Your task to perform on an android device: View the shopping cart on costco. Add "logitech g pro" to the cart on costco Image 0: 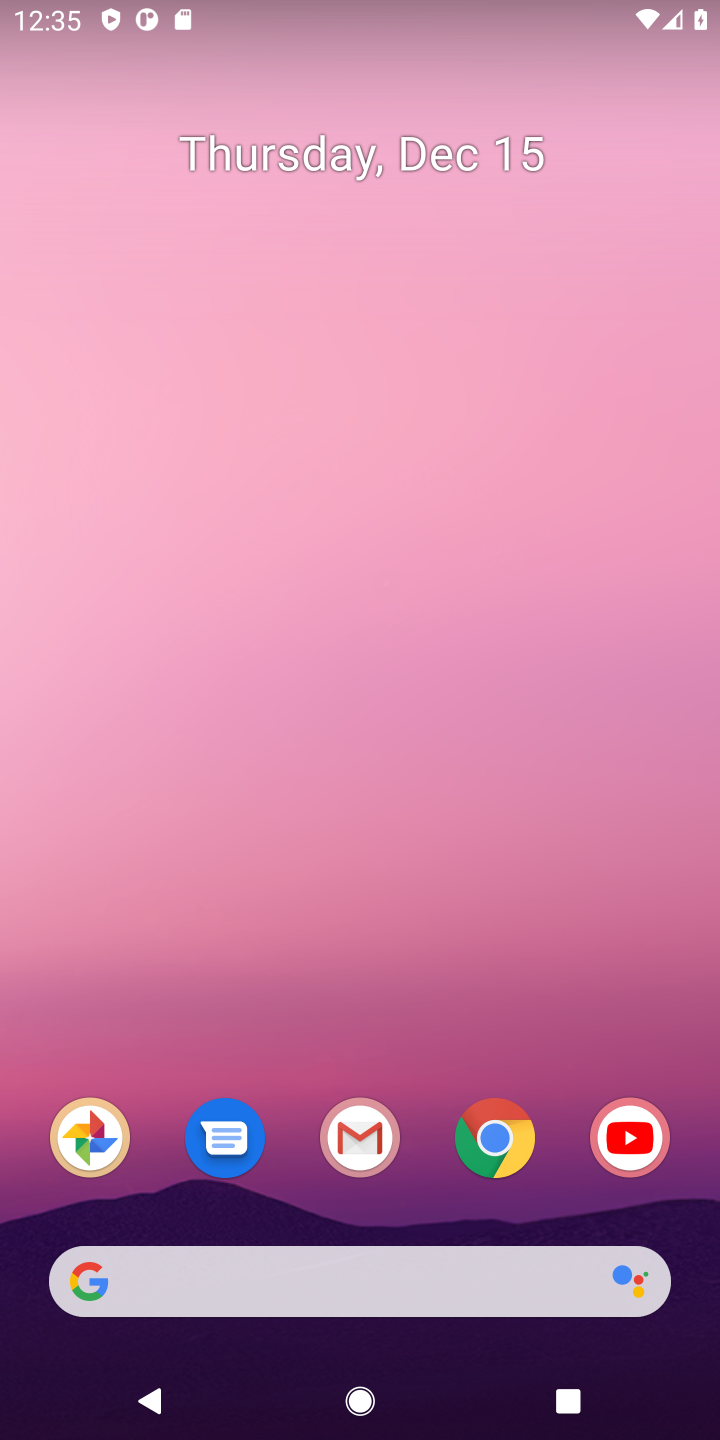
Step 0: click (533, 1126)
Your task to perform on an android device: View the shopping cart on costco. Add "logitech g pro" to the cart on costco Image 1: 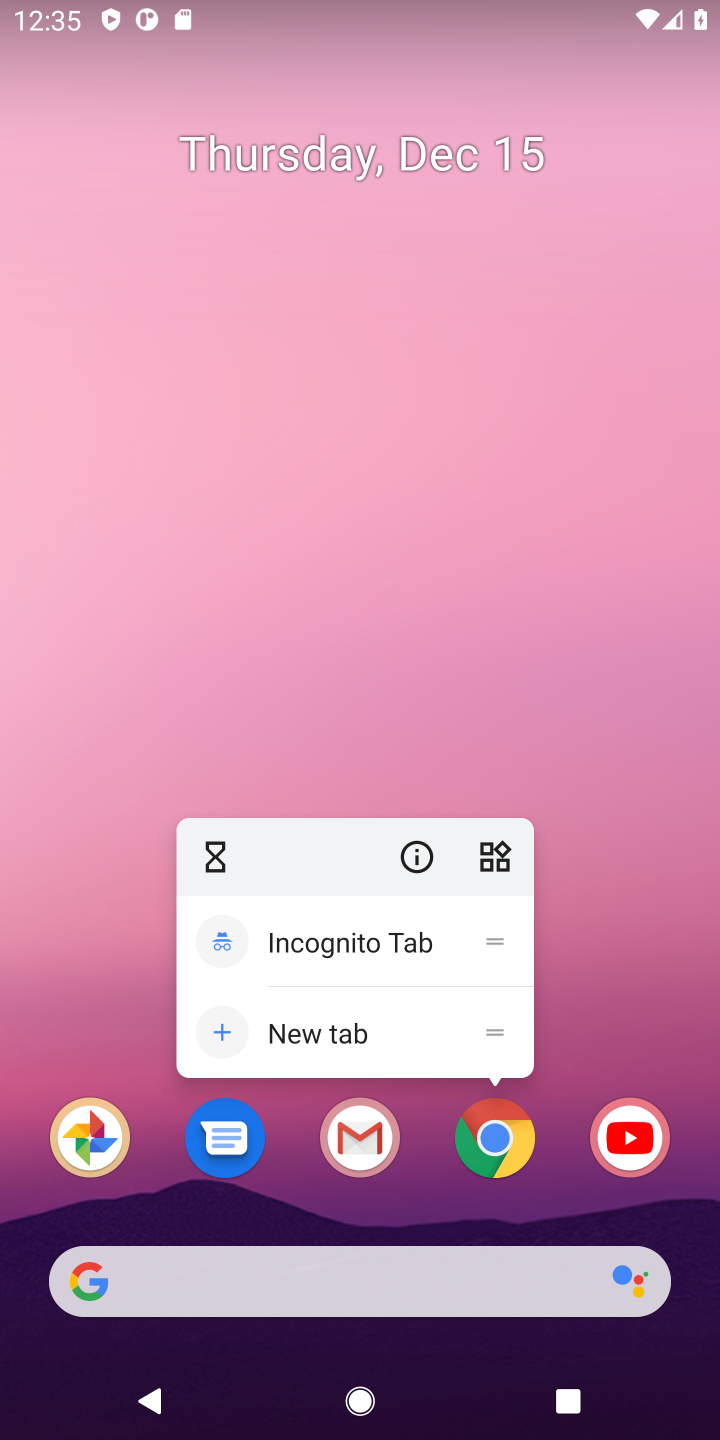
Step 1: click (501, 1153)
Your task to perform on an android device: View the shopping cart on costco. Add "logitech g pro" to the cart on costco Image 2: 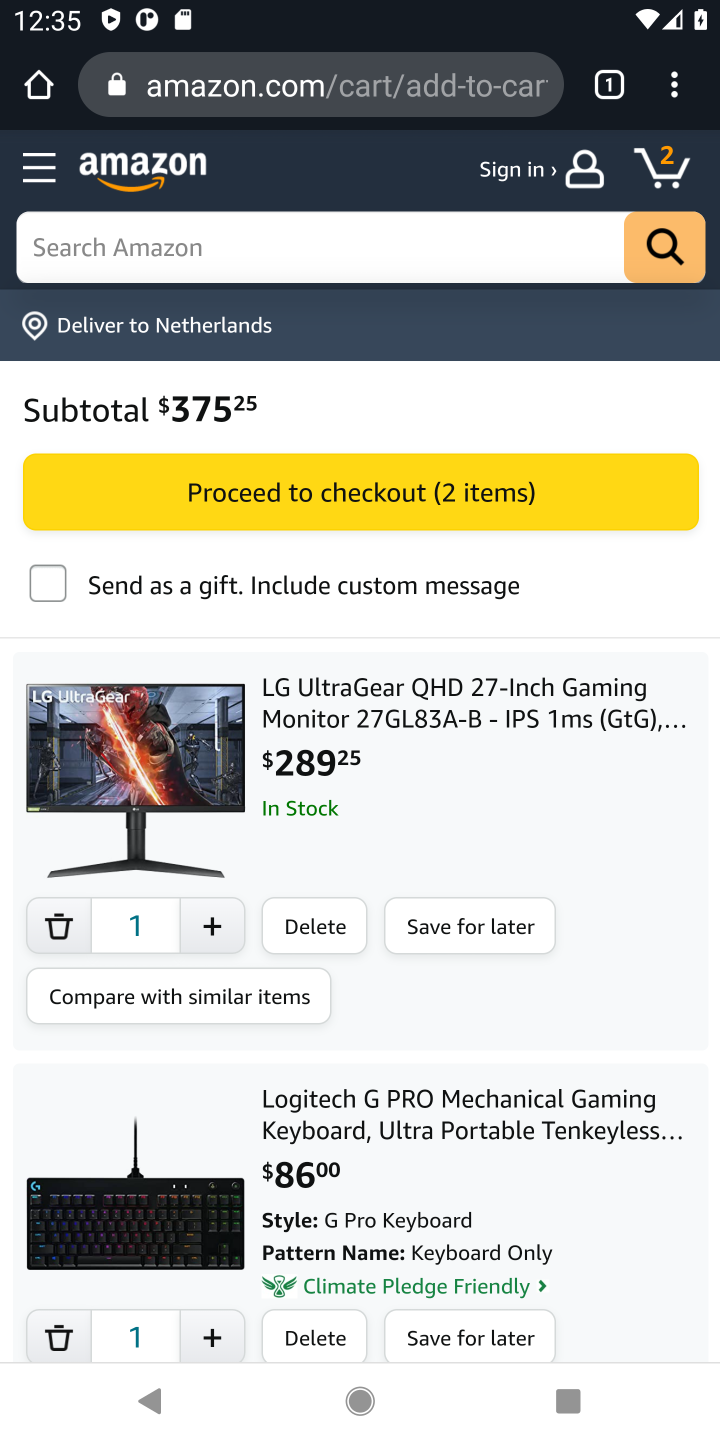
Step 2: click (324, 96)
Your task to perform on an android device: View the shopping cart on costco. Add "logitech g pro" to the cart on costco Image 3: 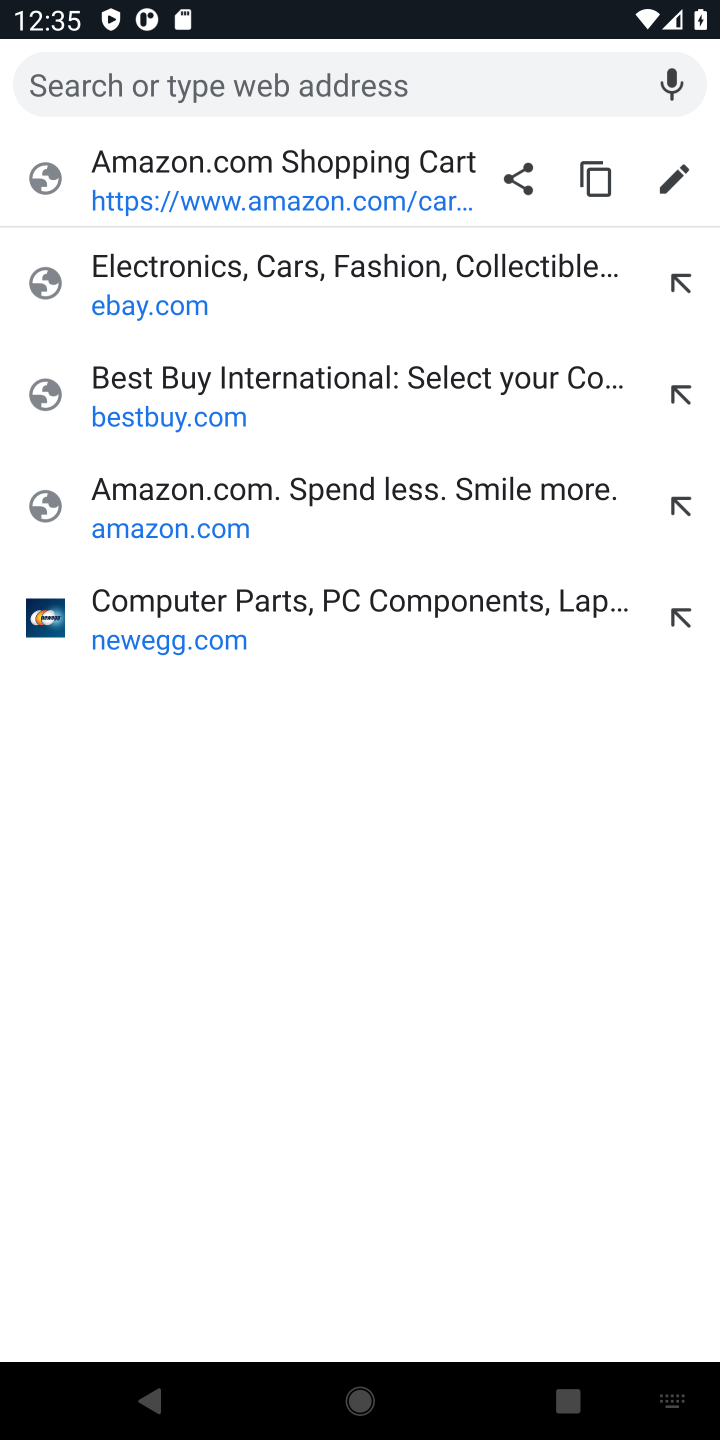
Step 3: type "costco.com"
Your task to perform on an android device: View the shopping cart on costco. Add "logitech g pro" to the cart on costco Image 4: 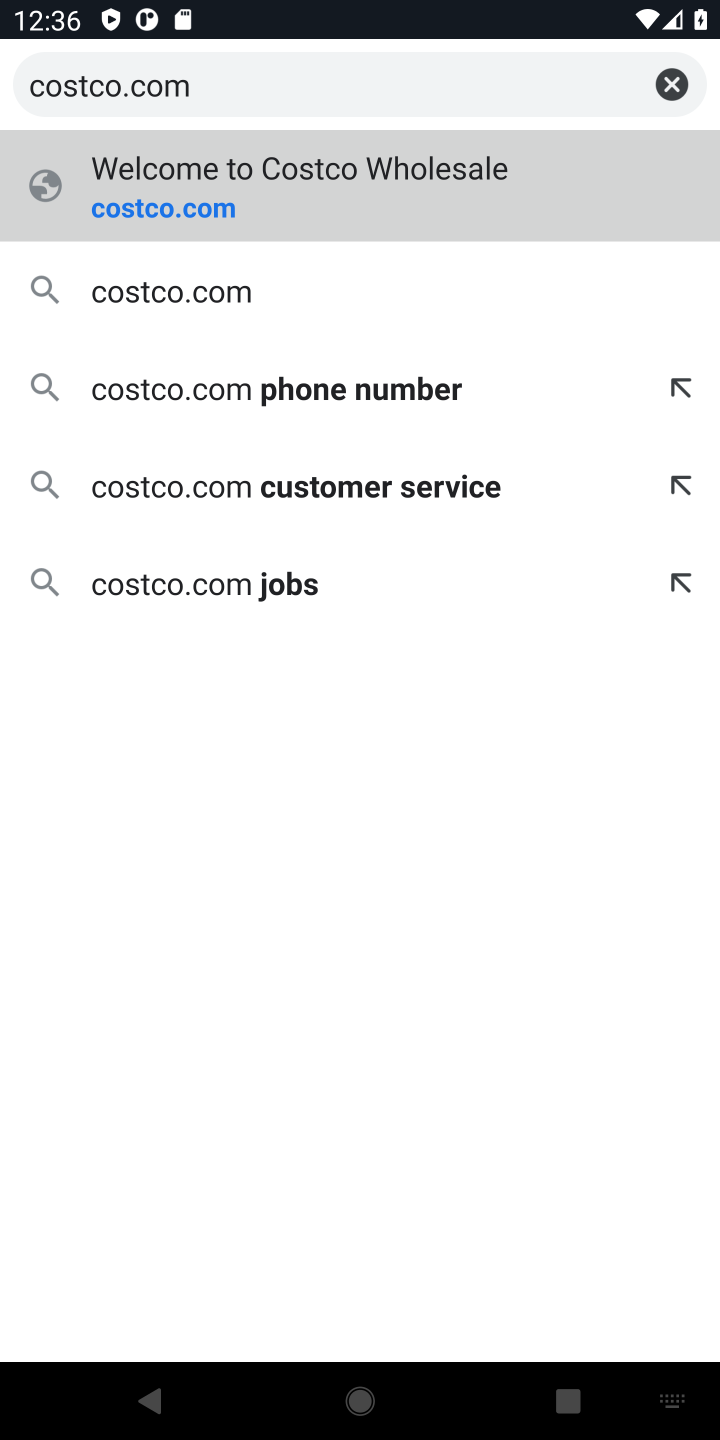
Step 4: click (211, 206)
Your task to perform on an android device: View the shopping cart on costco. Add "logitech g pro" to the cart on costco Image 5: 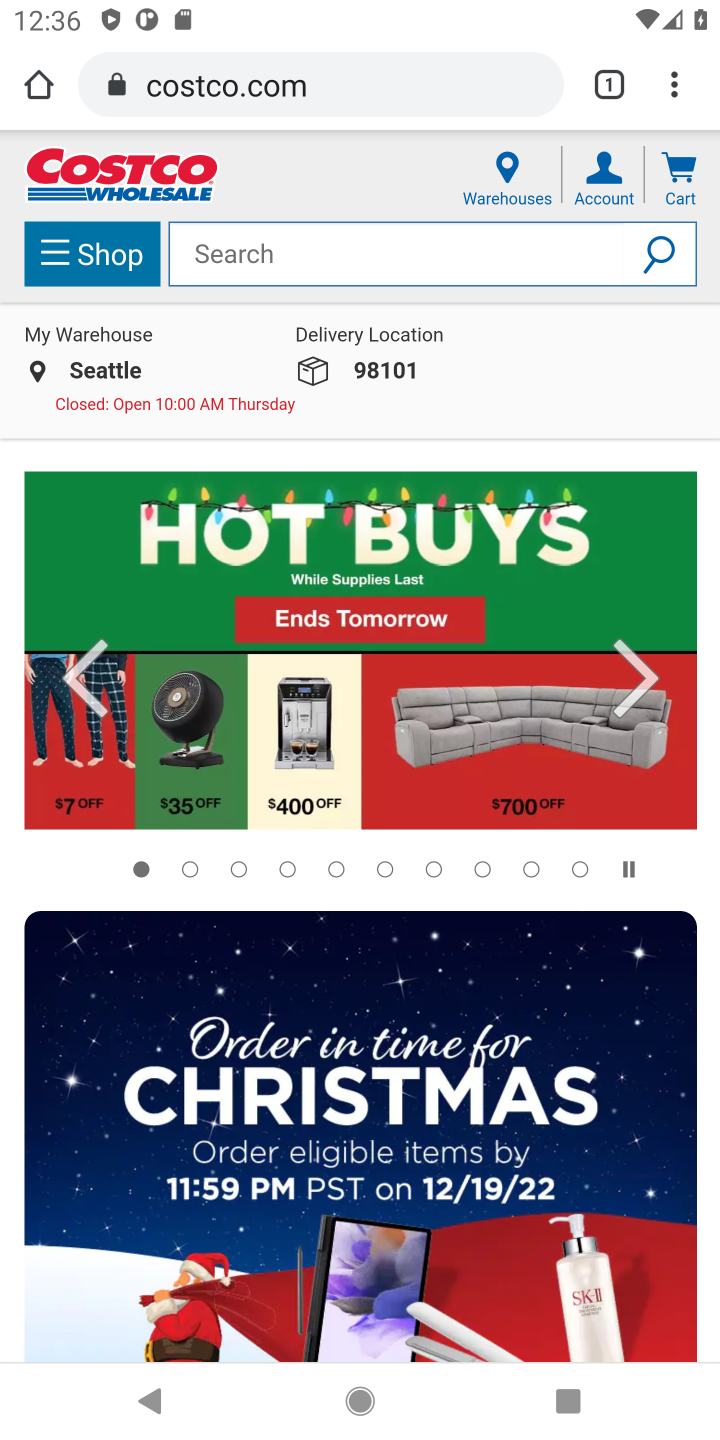
Step 5: click (694, 174)
Your task to perform on an android device: View the shopping cart on costco. Add "logitech g pro" to the cart on costco Image 6: 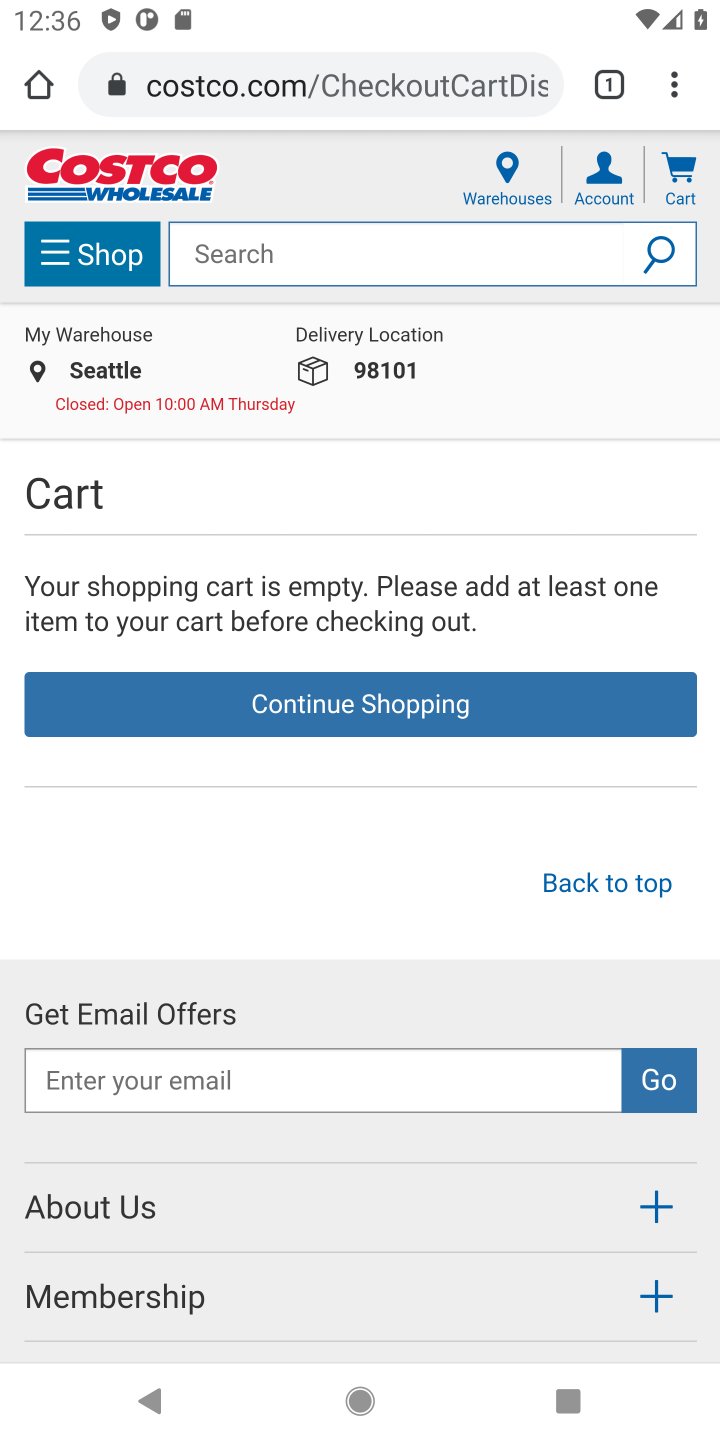
Step 6: click (389, 250)
Your task to perform on an android device: View the shopping cart on costco. Add "logitech g pro" to the cart on costco Image 7: 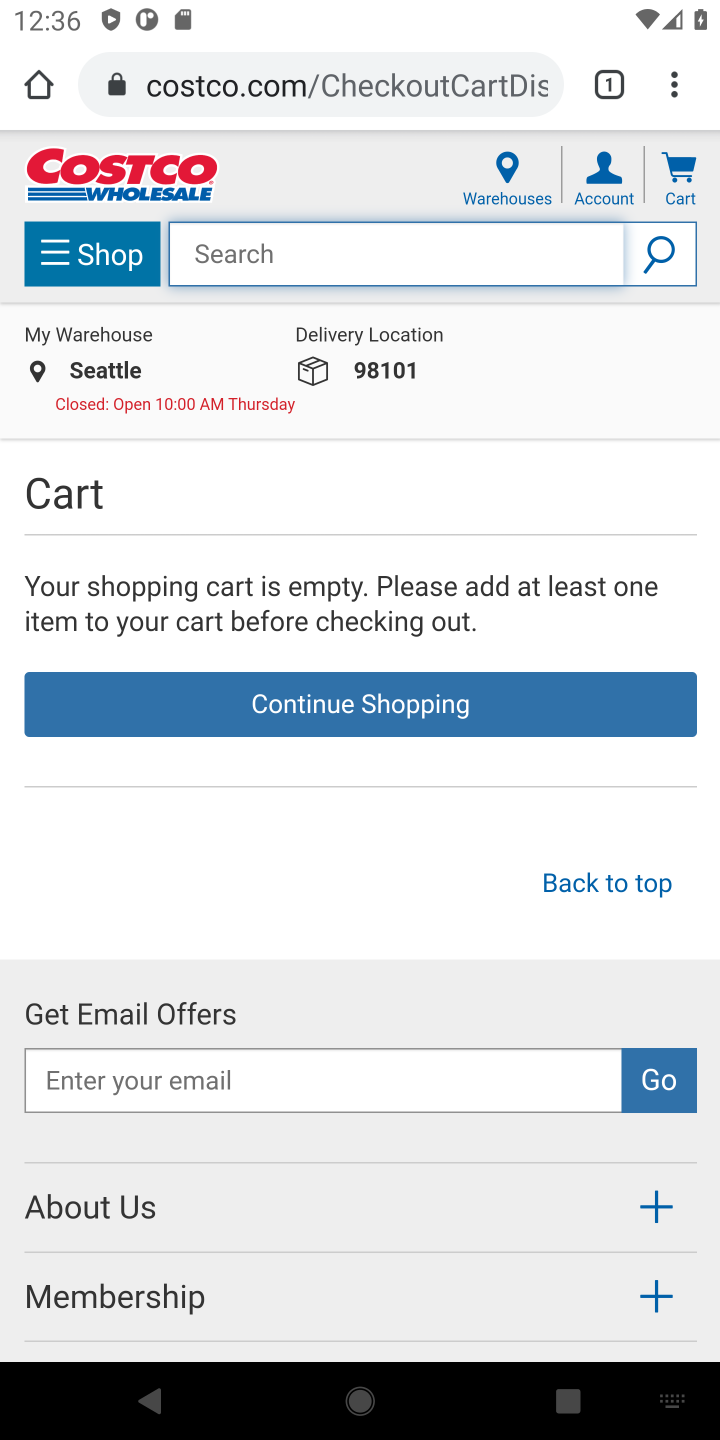
Step 7: type "logitech g pro"
Your task to perform on an android device: View the shopping cart on costco. Add "logitech g pro" to the cart on costco Image 8: 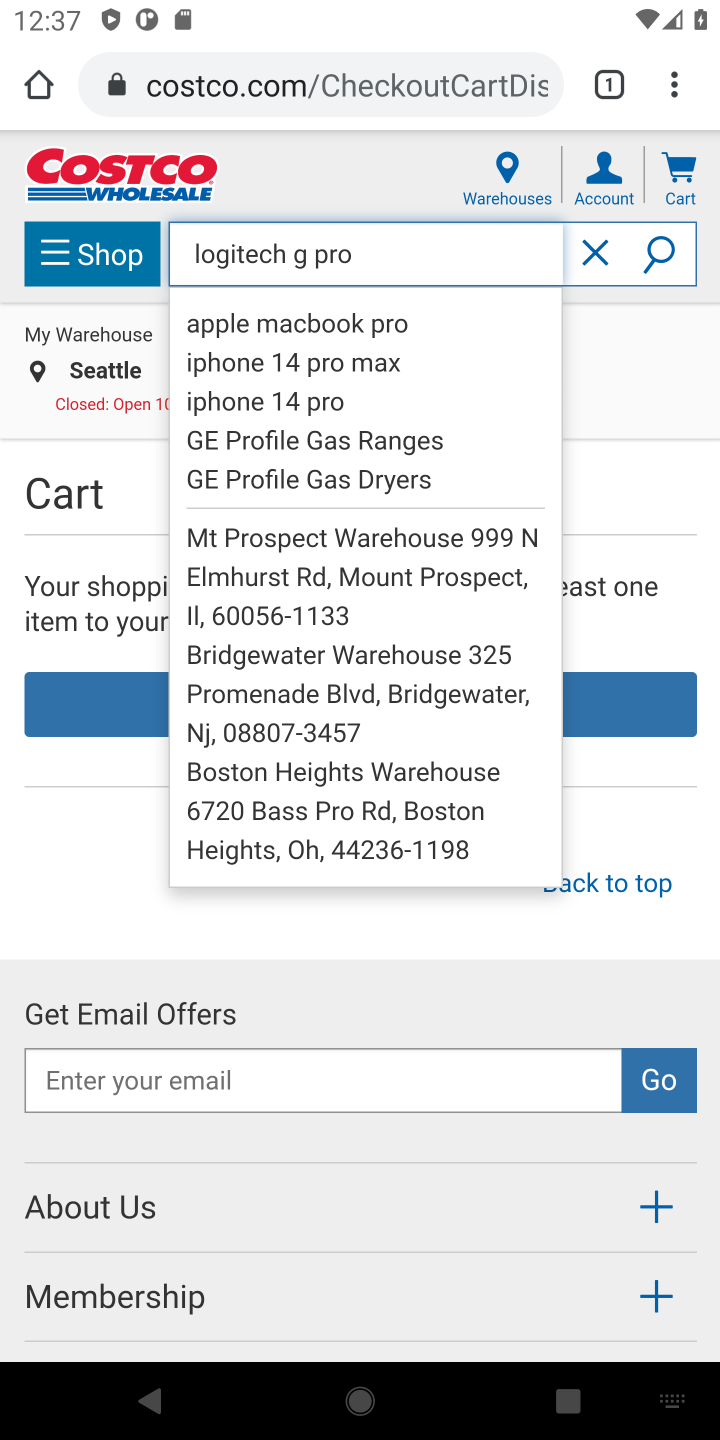
Step 8: click (674, 260)
Your task to perform on an android device: View the shopping cart on costco. Add "logitech g pro" to the cart on costco Image 9: 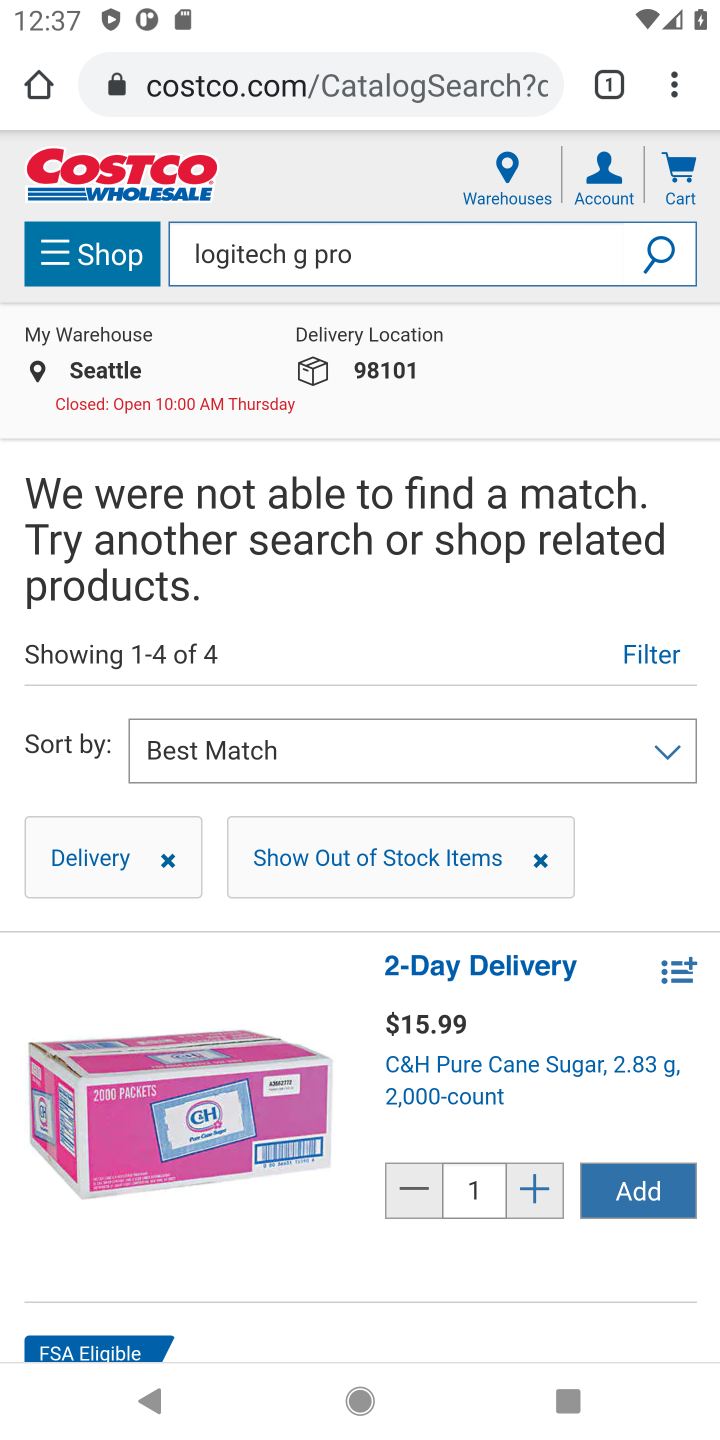
Step 9: task complete